Your task to perform on an android device: Go to eBay Image 0: 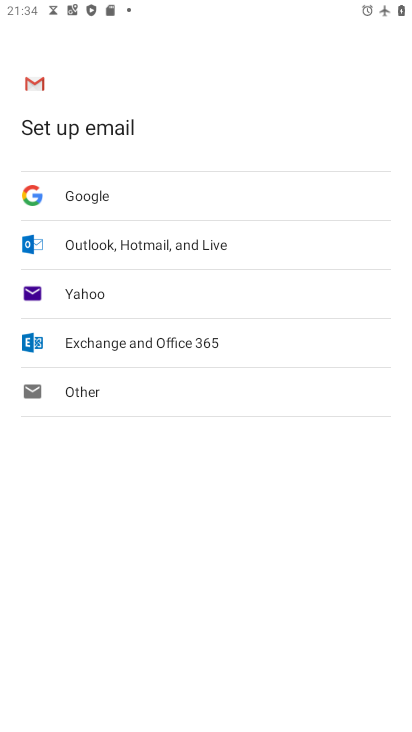
Step 0: press home button
Your task to perform on an android device: Go to eBay Image 1: 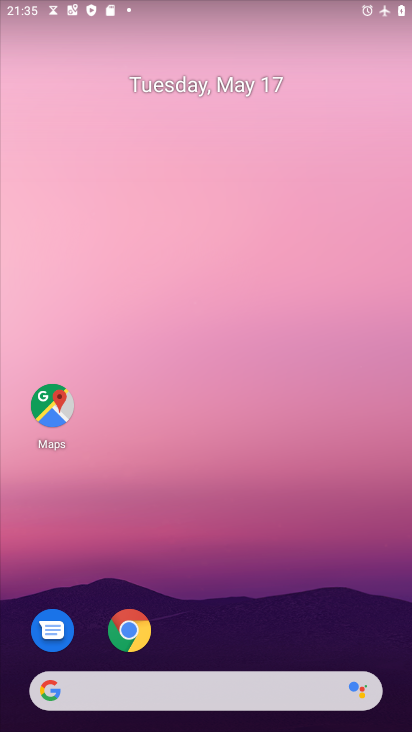
Step 1: click (138, 629)
Your task to perform on an android device: Go to eBay Image 2: 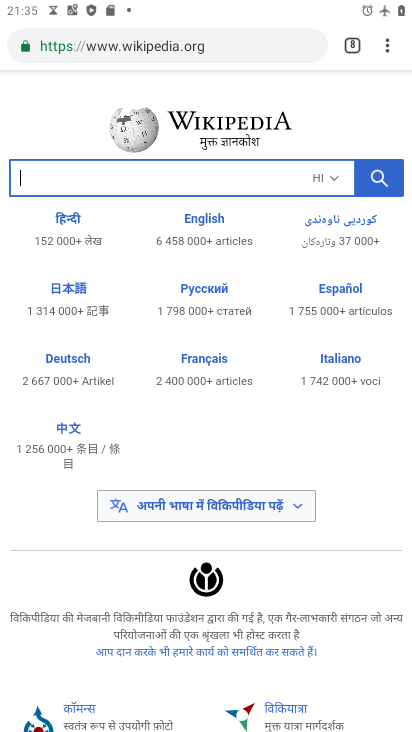
Step 2: click (353, 46)
Your task to perform on an android device: Go to eBay Image 3: 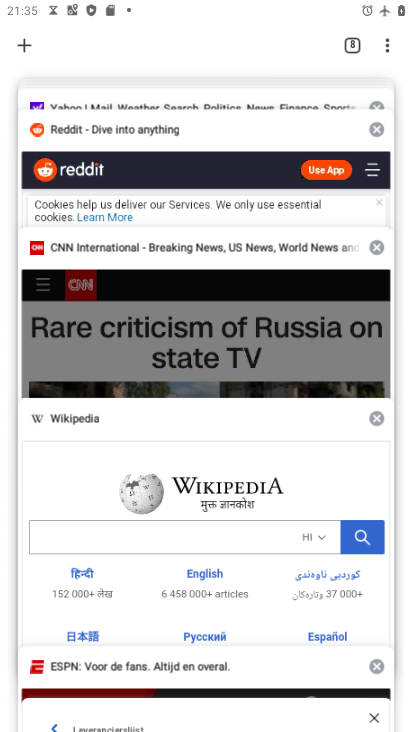
Step 3: drag from (94, 128) to (51, 424)
Your task to perform on an android device: Go to eBay Image 4: 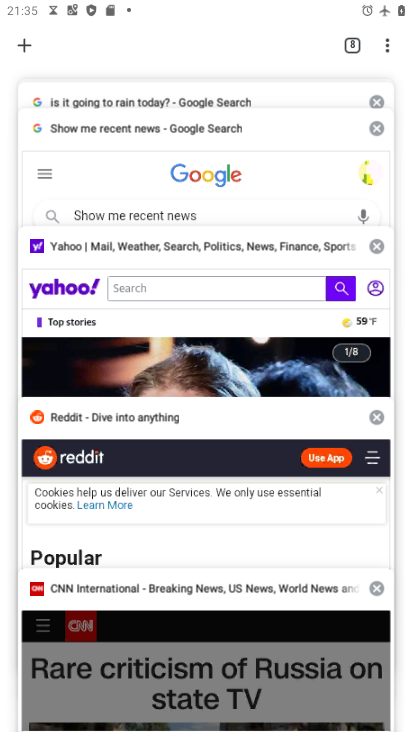
Step 4: click (19, 42)
Your task to perform on an android device: Go to eBay Image 5: 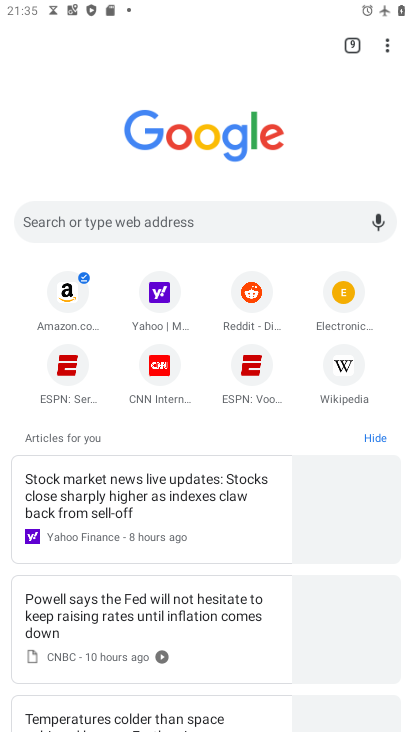
Step 5: click (241, 213)
Your task to perform on an android device: Go to eBay Image 6: 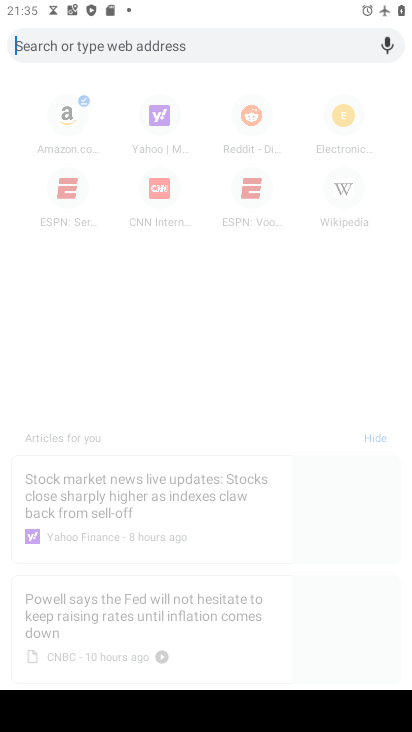
Step 6: type "ebay"
Your task to perform on an android device: Go to eBay Image 7: 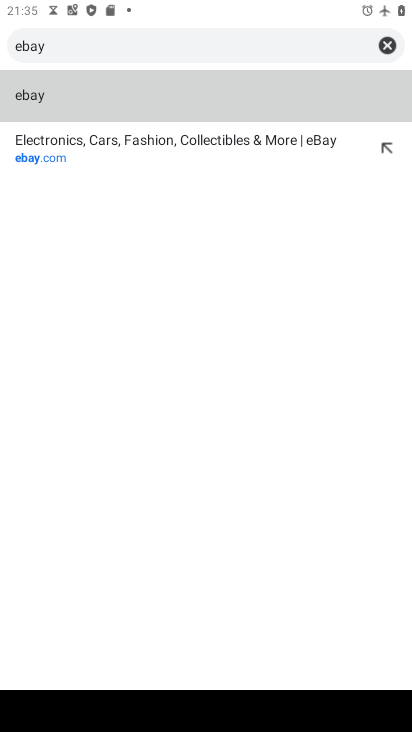
Step 7: click (125, 157)
Your task to perform on an android device: Go to eBay Image 8: 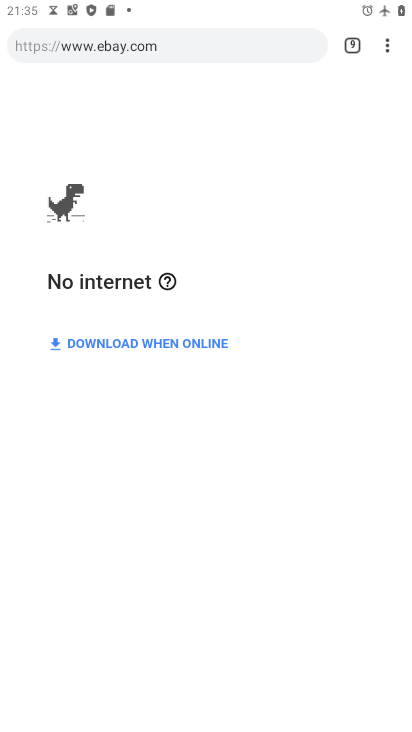
Step 8: task complete